Your task to perform on an android device: turn on showing notifications on the lock screen Image 0: 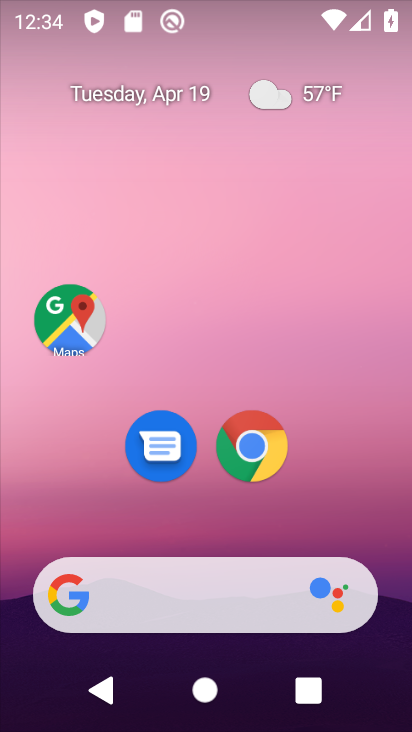
Step 0: drag from (320, 486) to (351, 34)
Your task to perform on an android device: turn on showing notifications on the lock screen Image 1: 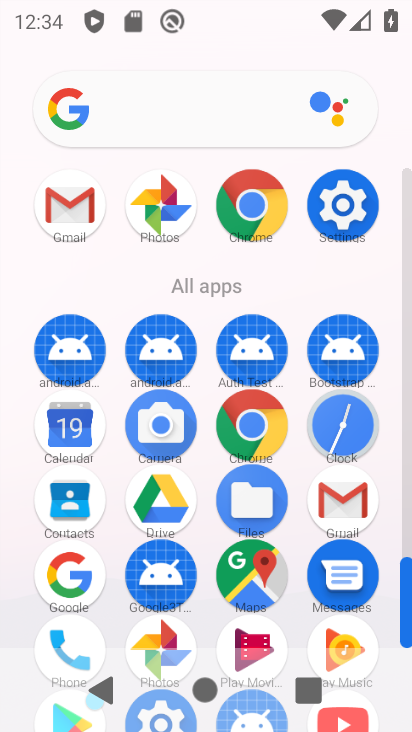
Step 1: click (337, 205)
Your task to perform on an android device: turn on showing notifications on the lock screen Image 2: 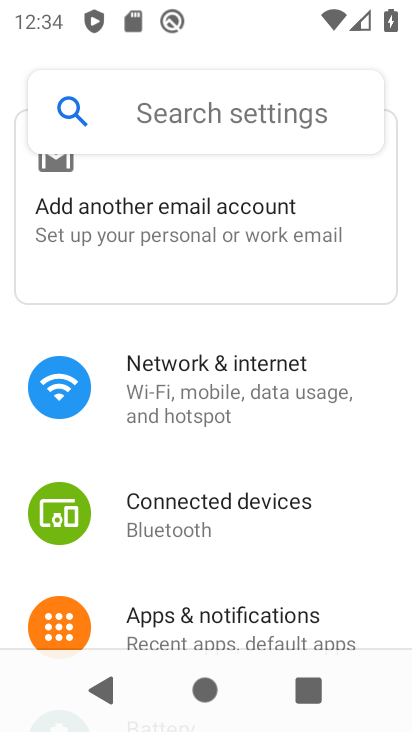
Step 2: drag from (277, 545) to (262, 345)
Your task to perform on an android device: turn on showing notifications on the lock screen Image 3: 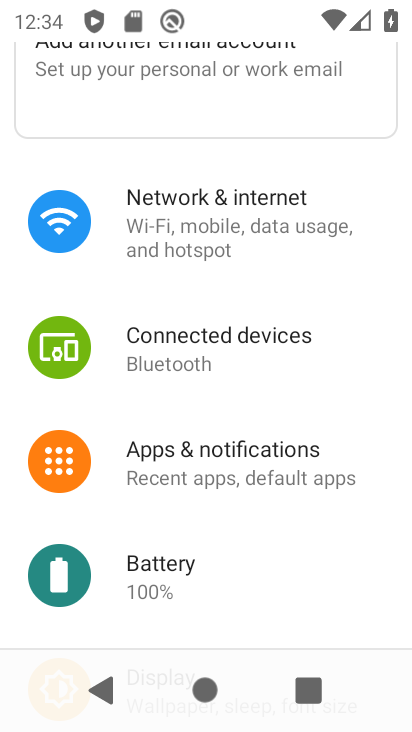
Step 3: click (259, 465)
Your task to perform on an android device: turn on showing notifications on the lock screen Image 4: 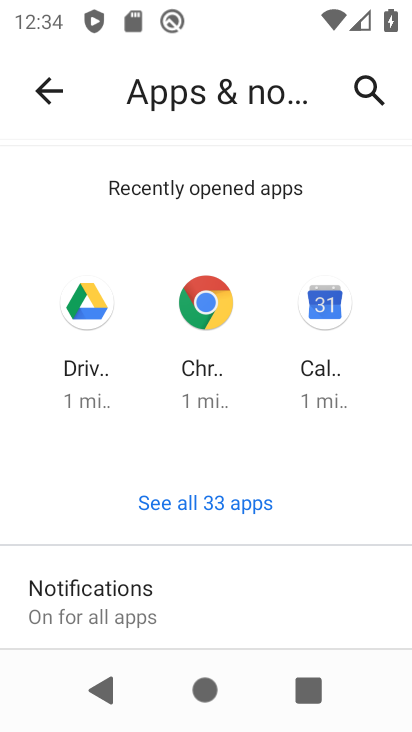
Step 4: click (140, 593)
Your task to perform on an android device: turn on showing notifications on the lock screen Image 5: 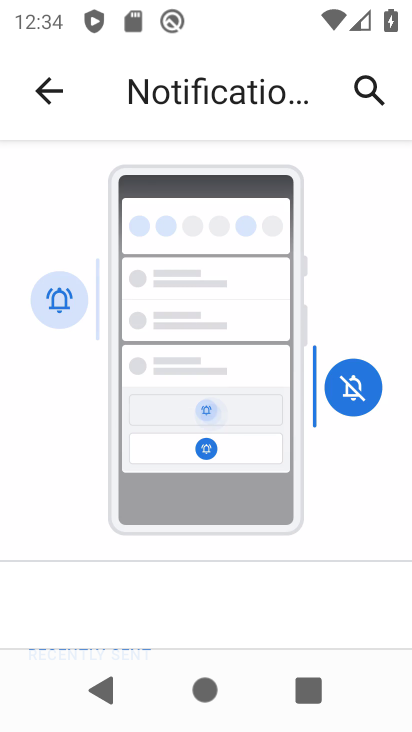
Step 5: drag from (227, 575) to (252, 205)
Your task to perform on an android device: turn on showing notifications on the lock screen Image 6: 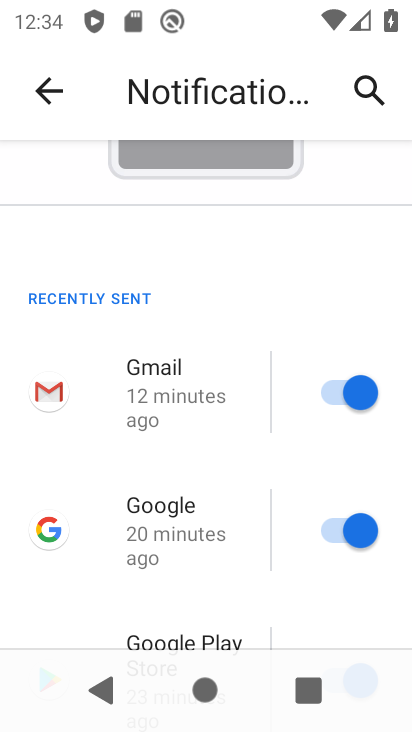
Step 6: drag from (215, 573) to (242, 185)
Your task to perform on an android device: turn on showing notifications on the lock screen Image 7: 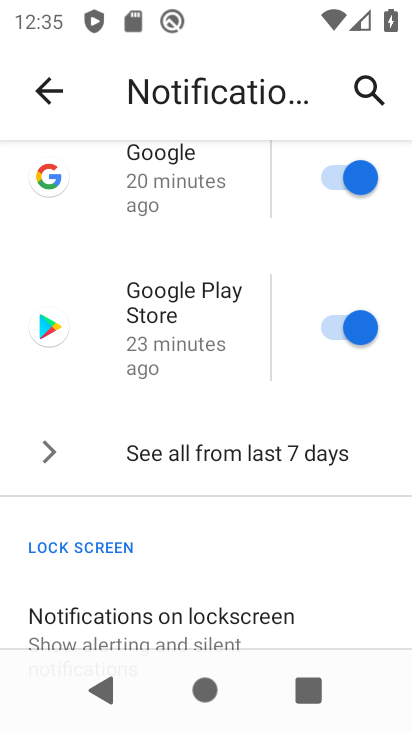
Step 7: drag from (219, 559) to (248, 258)
Your task to perform on an android device: turn on showing notifications on the lock screen Image 8: 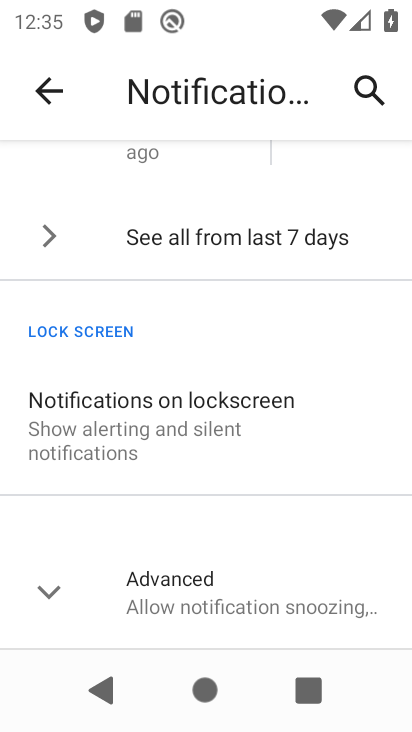
Step 8: click (257, 433)
Your task to perform on an android device: turn on showing notifications on the lock screen Image 9: 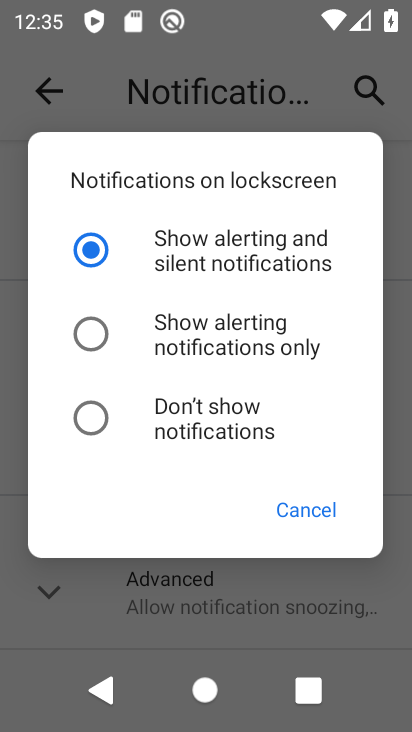
Step 9: click (304, 501)
Your task to perform on an android device: turn on showing notifications on the lock screen Image 10: 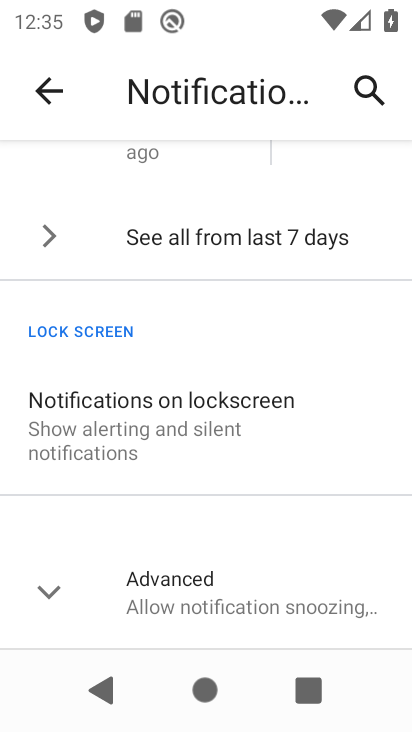
Step 10: task complete